Your task to perform on an android device: Search for sushi restaurants on Maps Image 0: 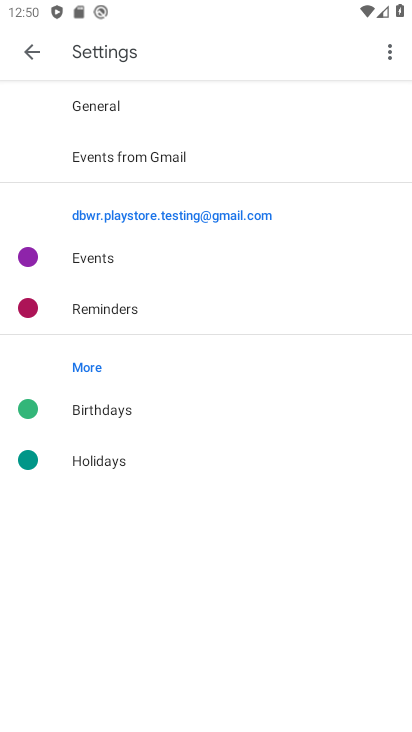
Step 0: press back button
Your task to perform on an android device: Search for sushi restaurants on Maps Image 1: 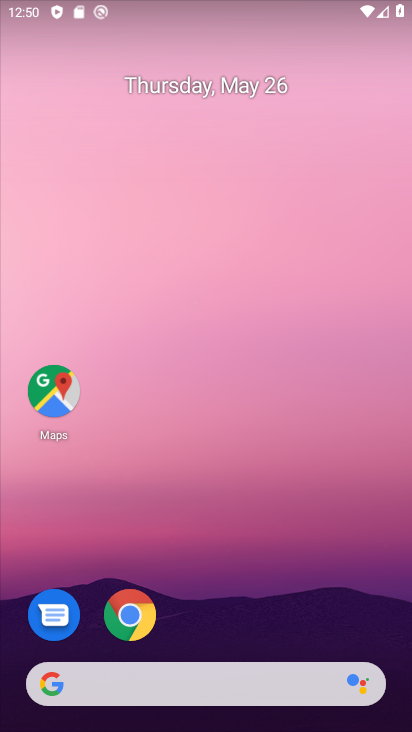
Step 1: click (66, 378)
Your task to perform on an android device: Search for sushi restaurants on Maps Image 2: 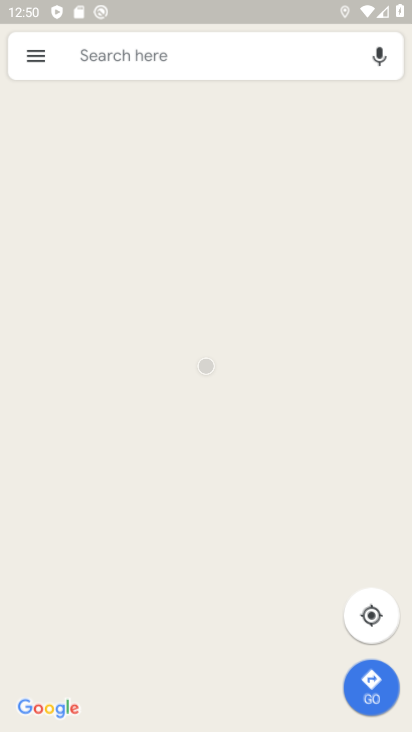
Step 2: click (146, 54)
Your task to perform on an android device: Search for sushi restaurants on Maps Image 3: 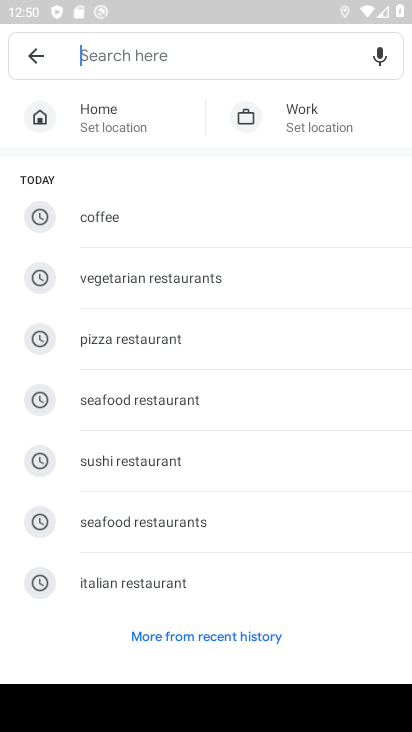
Step 3: click (131, 460)
Your task to perform on an android device: Search for sushi restaurants on Maps Image 4: 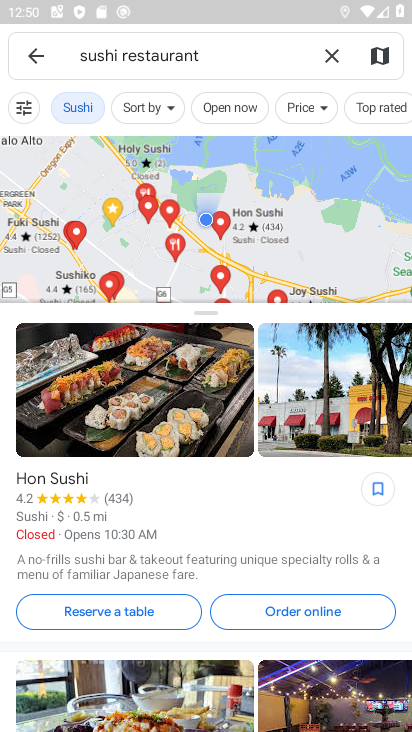
Step 4: task complete